Your task to perform on an android device: Open accessibility settings Image 0: 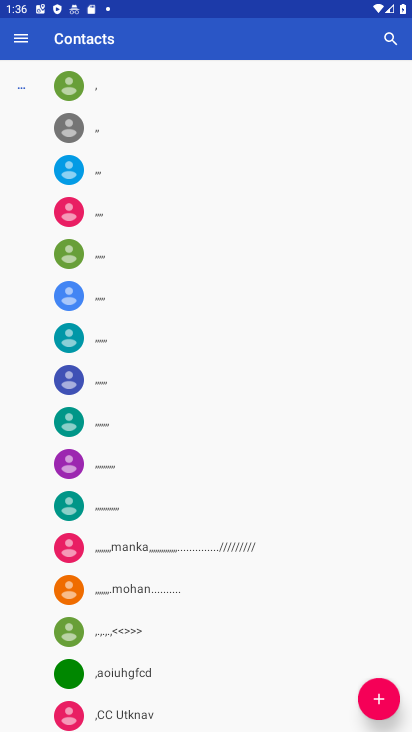
Step 0: press home button
Your task to perform on an android device: Open accessibility settings Image 1: 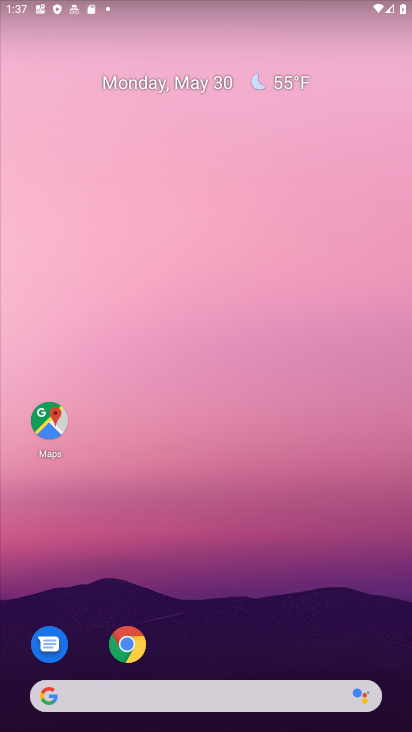
Step 1: drag from (272, 605) to (130, 16)
Your task to perform on an android device: Open accessibility settings Image 2: 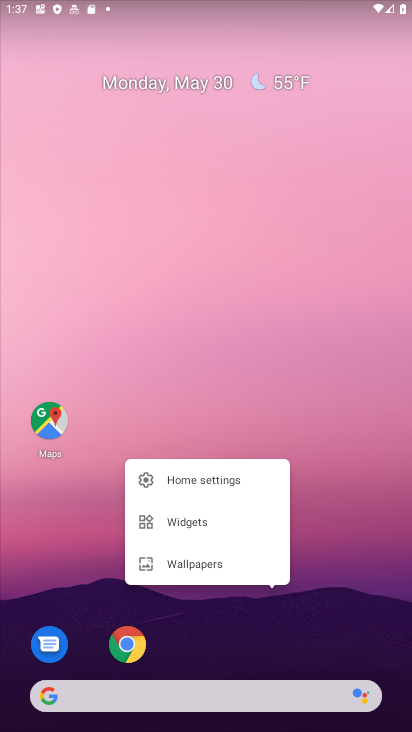
Step 2: click (230, 264)
Your task to perform on an android device: Open accessibility settings Image 3: 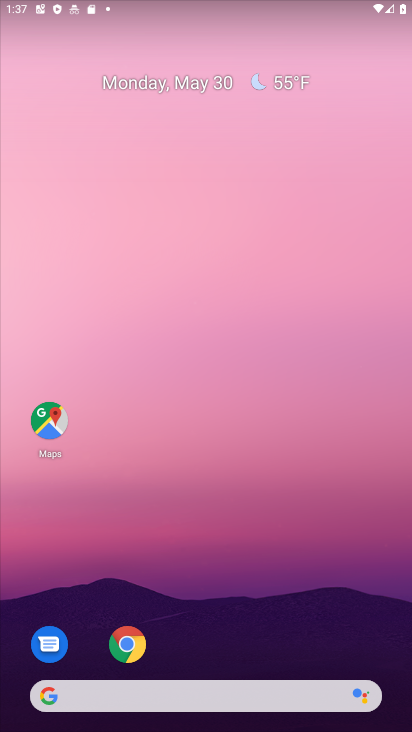
Step 3: drag from (242, 605) to (159, 102)
Your task to perform on an android device: Open accessibility settings Image 4: 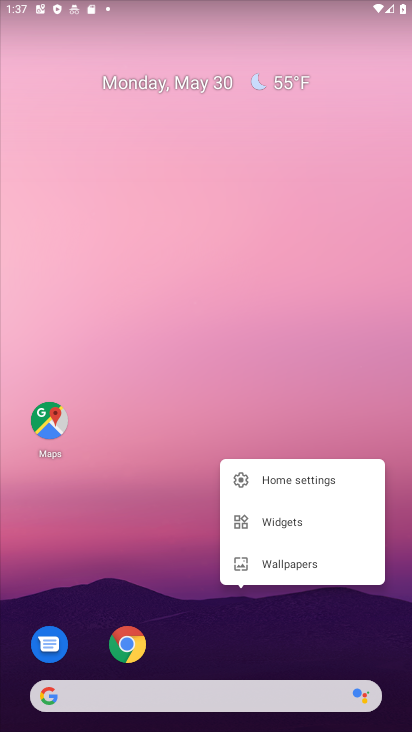
Step 4: click (204, 285)
Your task to perform on an android device: Open accessibility settings Image 5: 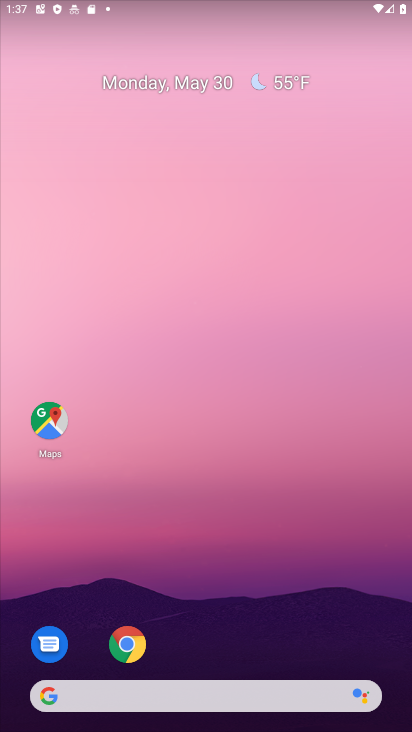
Step 5: drag from (242, 588) to (175, 9)
Your task to perform on an android device: Open accessibility settings Image 6: 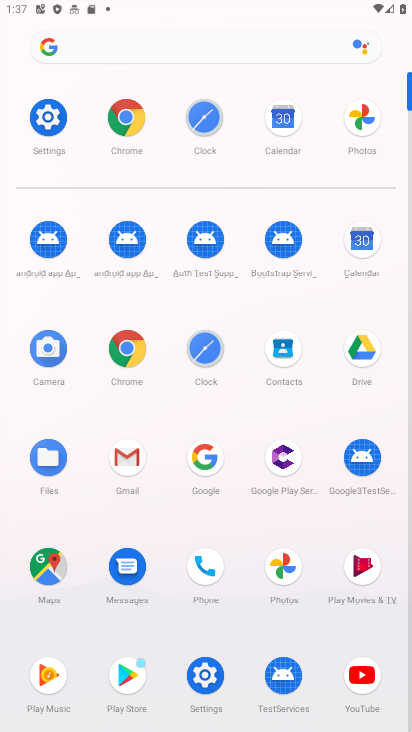
Step 6: click (28, 128)
Your task to perform on an android device: Open accessibility settings Image 7: 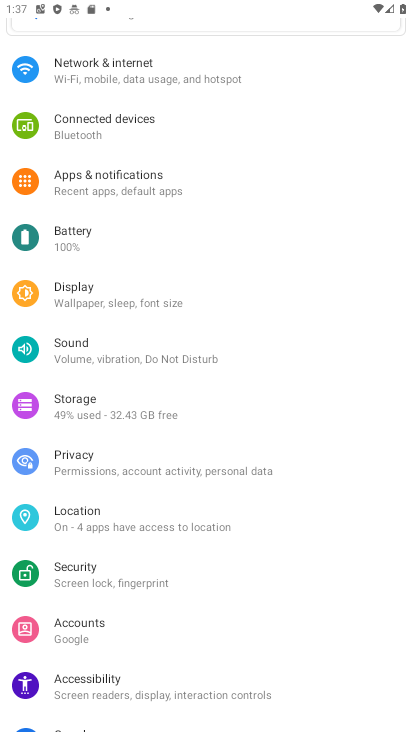
Step 7: click (152, 669)
Your task to perform on an android device: Open accessibility settings Image 8: 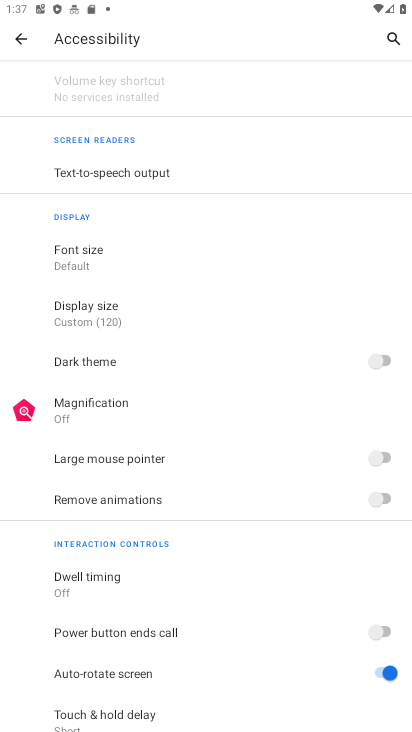
Step 8: task complete